Your task to perform on an android device: toggle data saver in the chrome app Image 0: 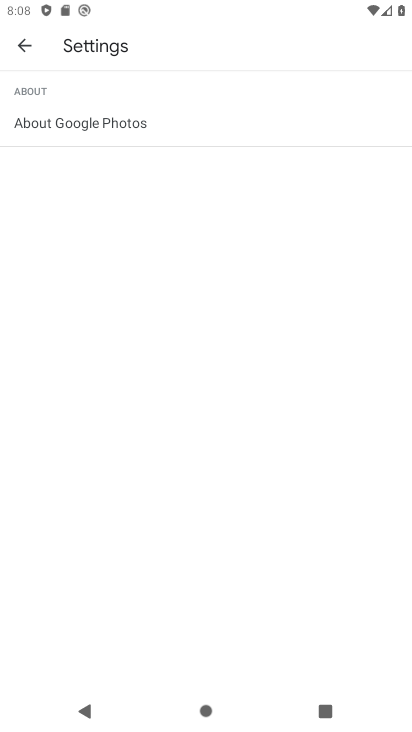
Step 0: press home button
Your task to perform on an android device: toggle data saver in the chrome app Image 1: 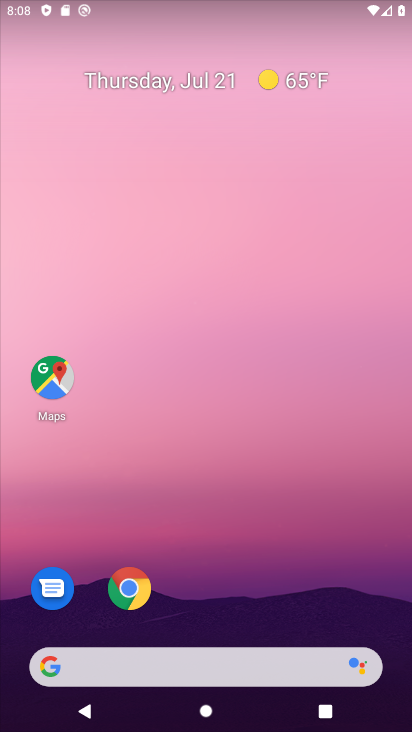
Step 1: drag from (193, 627) to (192, 1)
Your task to perform on an android device: toggle data saver in the chrome app Image 2: 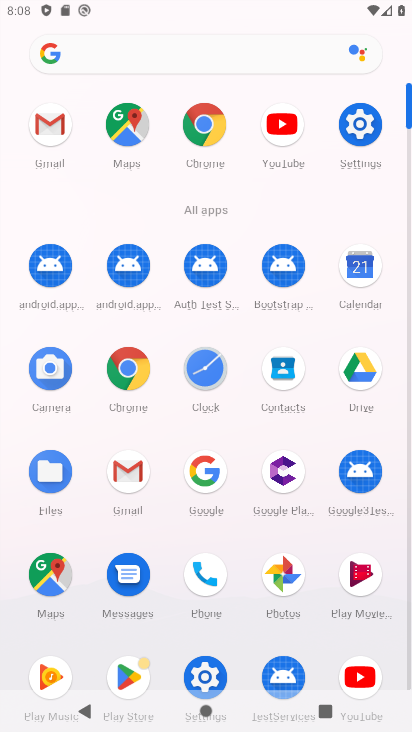
Step 2: click (198, 123)
Your task to perform on an android device: toggle data saver in the chrome app Image 3: 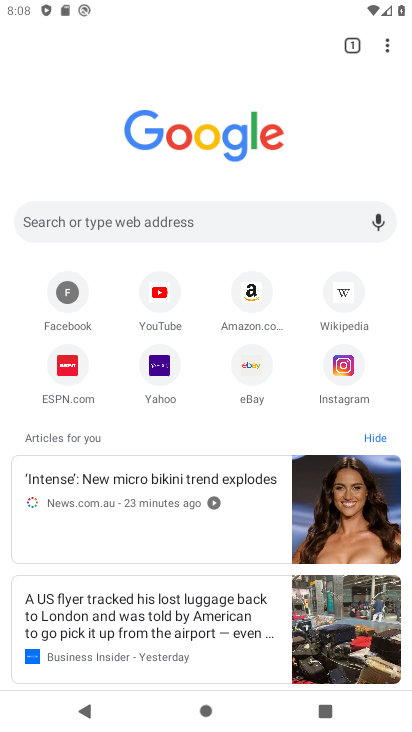
Step 3: click (379, 43)
Your task to perform on an android device: toggle data saver in the chrome app Image 4: 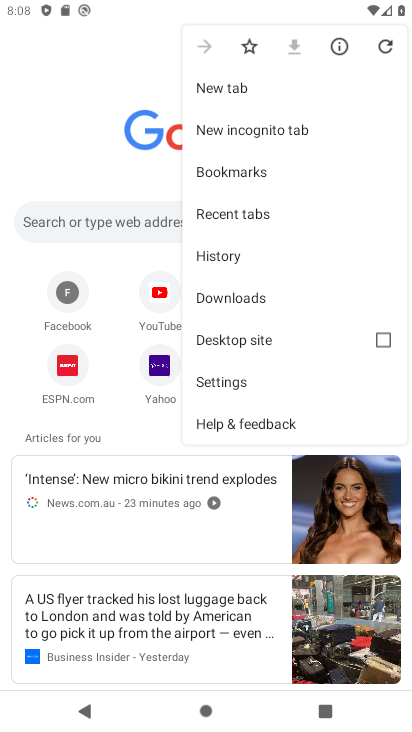
Step 4: click (214, 381)
Your task to perform on an android device: toggle data saver in the chrome app Image 5: 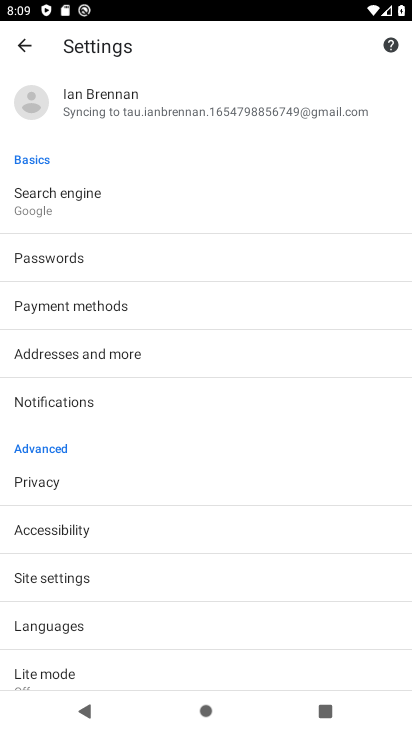
Step 5: click (87, 686)
Your task to perform on an android device: toggle data saver in the chrome app Image 6: 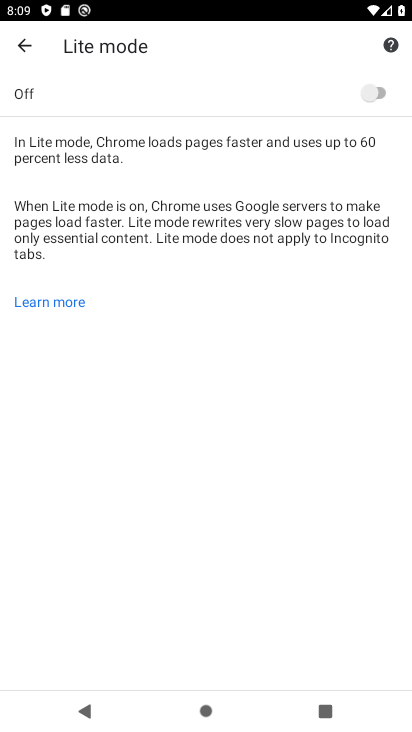
Step 6: click (370, 100)
Your task to perform on an android device: toggle data saver in the chrome app Image 7: 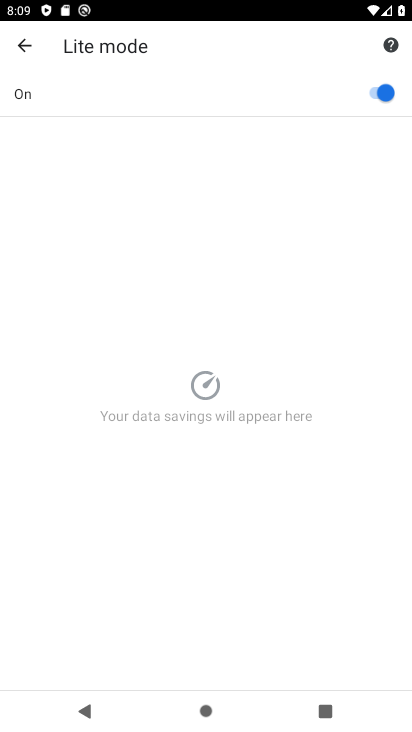
Step 7: task complete